Your task to perform on an android device: When is my next meeting? Image 0: 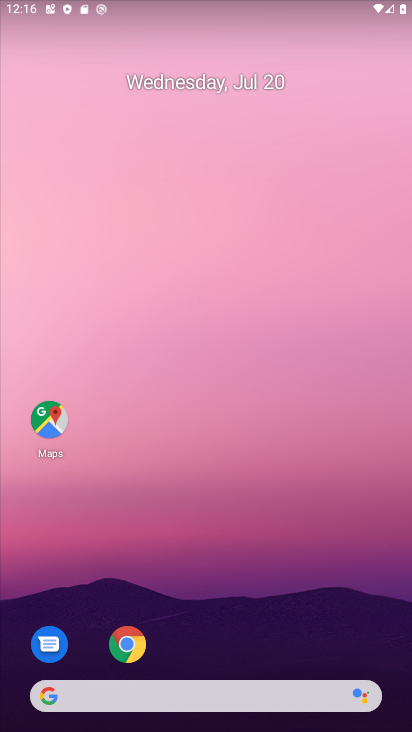
Step 0: press home button
Your task to perform on an android device: When is my next meeting? Image 1: 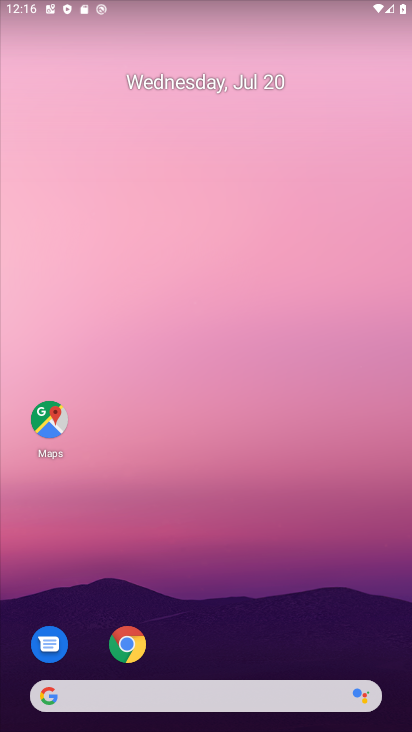
Step 1: drag from (368, 639) to (287, 302)
Your task to perform on an android device: When is my next meeting? Image 2: 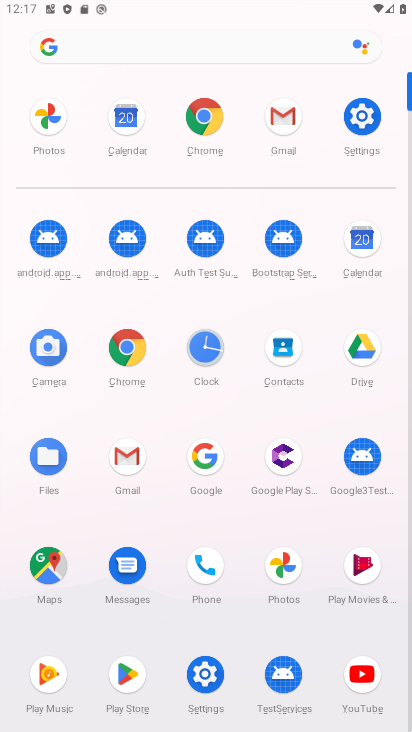
Step 2: click (333, 255)
Your task to perform on an android device: When is my next meeting? Image 3: 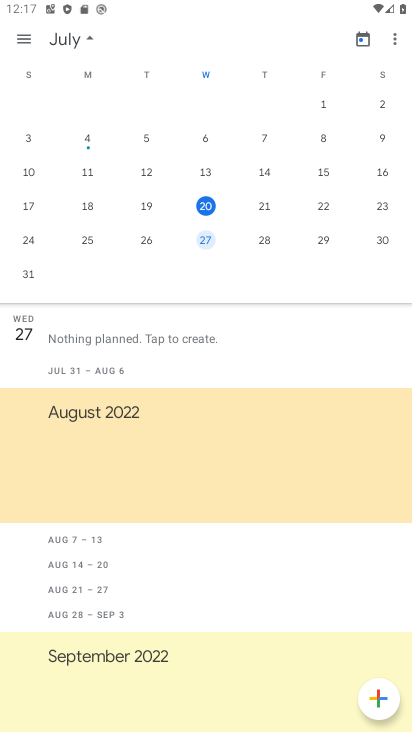
Step 3: task complete